Your task to perform on an android device: Open calendar and show me the third week of next month Image 0: 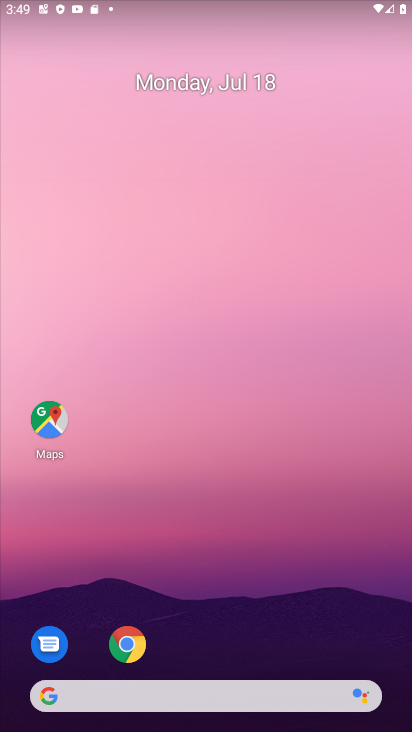
Step 0: drag from (342, 179) to (340, 140)
Your task to perform on an android device: Open calendar and show me the third week of next month Image 1: 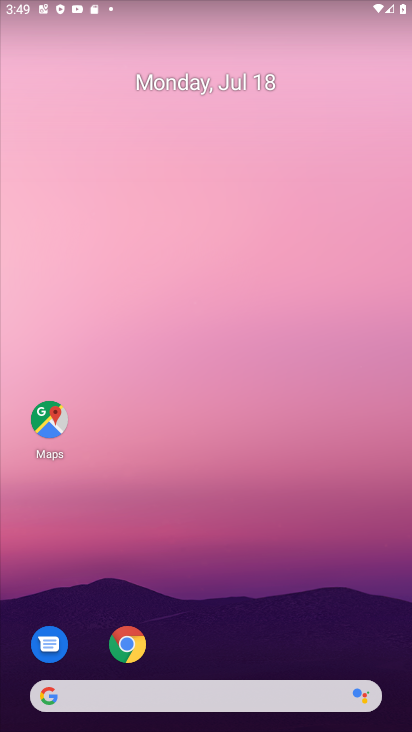
Step 1: drag from (375, 646) to (365, 108)
Your task to perform on an android device: Open calendar and show me the third week of next month Image 2: 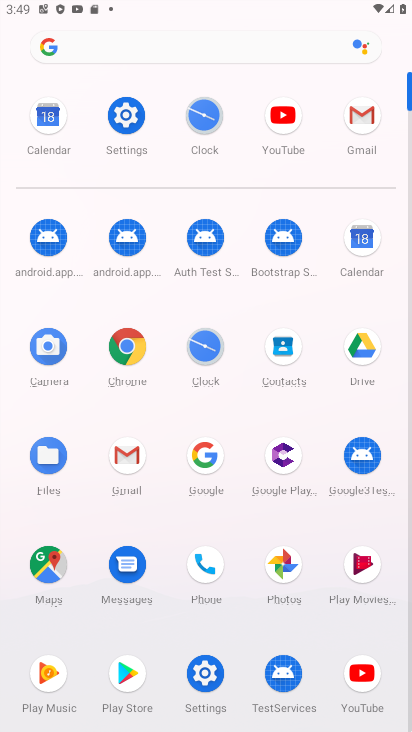
Step 2: click (360, 238)
Your task to perform on an android device: Open calendar and show me the third week of next month Image 3: 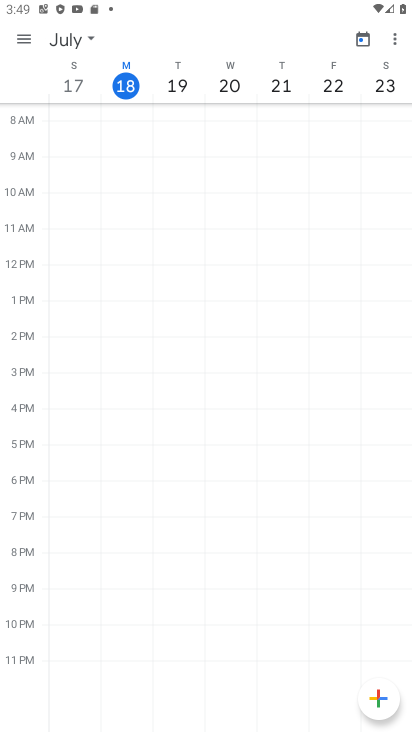
Step 3: click (84, 31)
Your task to perform on an android device: Open calendar and show me the third week of next month Image 4: 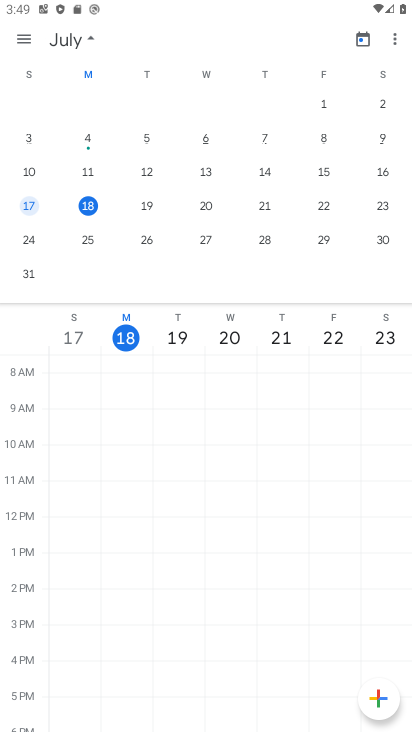
Step 4: drag from (383, 206) to (95, 231)
Your task to perform on an android device: Open calendar and show me the third week of next month Image 5: 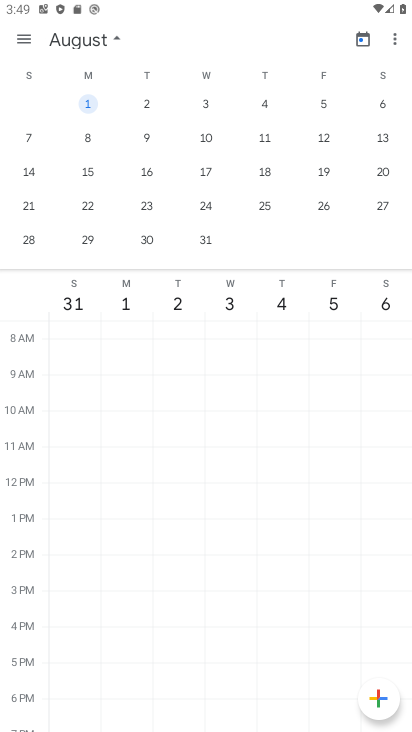
Step 5: click (26, 206)
Your task to perform on an android device: Open calendar and show me the third week of next month Image 6: 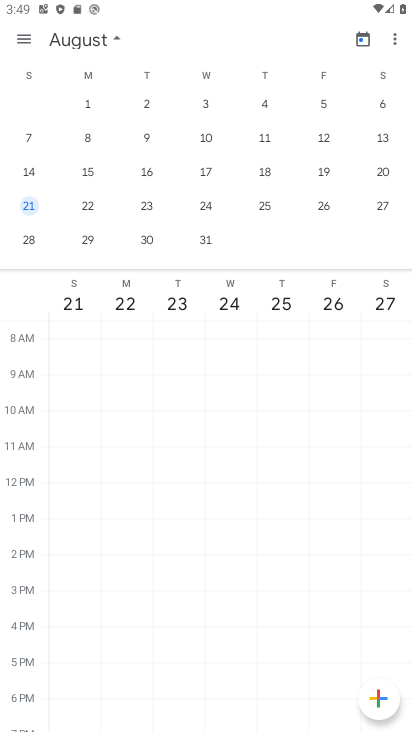
Step 6: task complete